Your task to perform on an android device: turn on notifications settings in the gmail app Image 0: 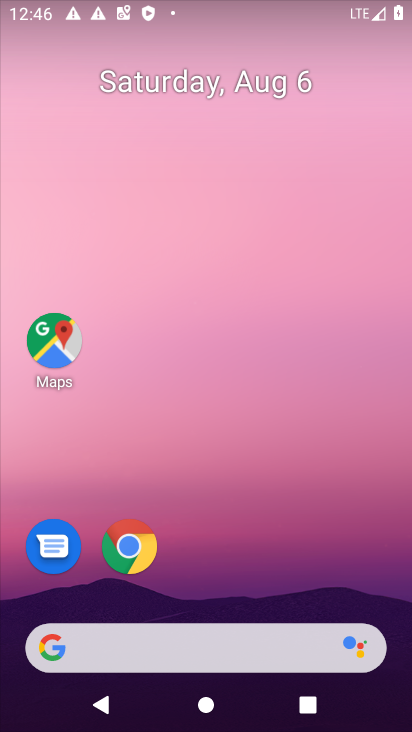
Step 0: drag from (371, 590) to (341, 18)
Your task to perform on an android device: turn on notifications settings in the gmail app Image 1: 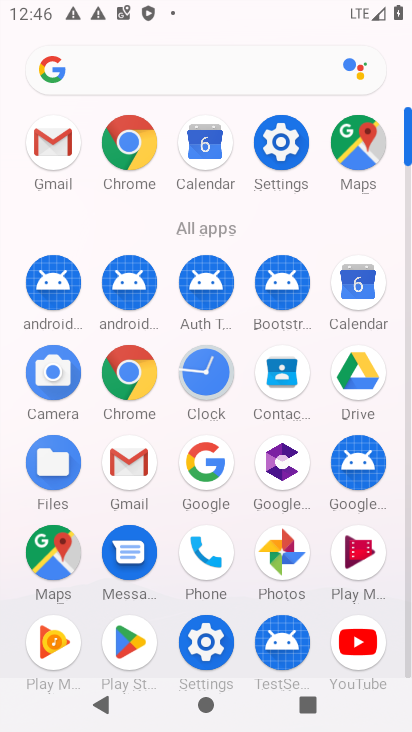
Step 1: click (126, 465)
Your task to perform on an android device: turn on notifications settings in the gmail app Image 2: 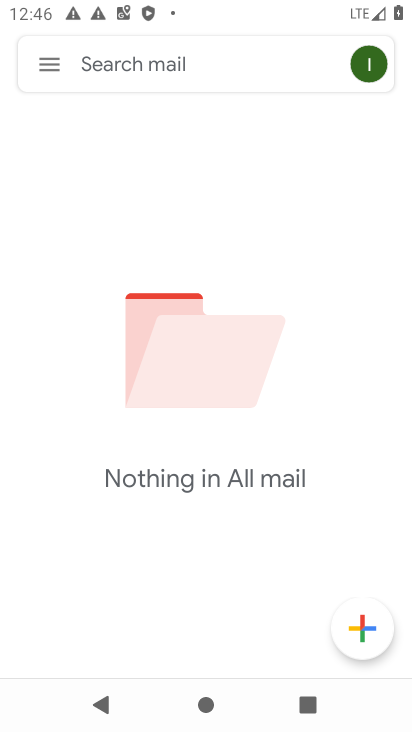
Step 2: click (47, 65)
Your task to perform on an android device: turn on notifications settings in the gmail app Image 3: 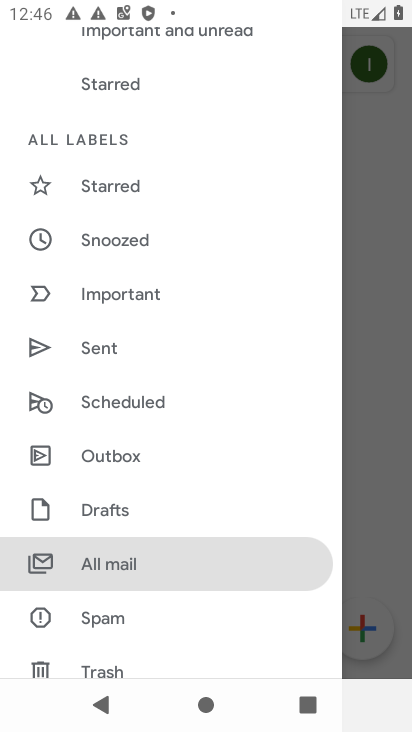
Step 3: drag from (213, 634) to (200, 304)
Your task to perform on an android device: turn on notifications settings in the gmail app Image 4: 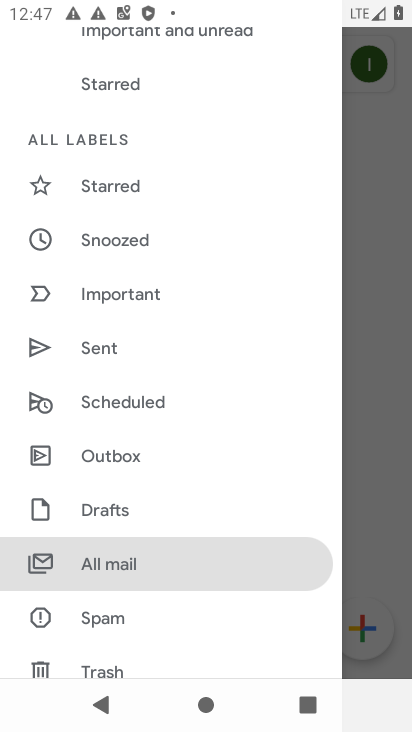
Step 4: drag from (233, 634) to (205, 219)
Your task to perform on an android device: turn on notifications settings in the gmail app Image 5: 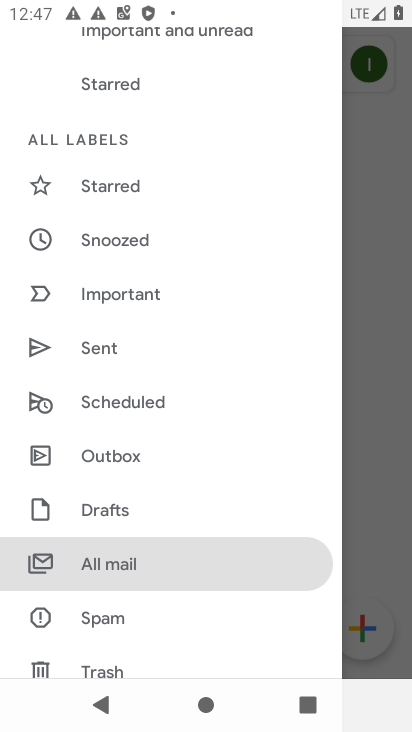
Step 5: drag from (189, 634) to (196, 222)
Your task to perform on an android device: turn on notifications settings in the gmail app Image 6: 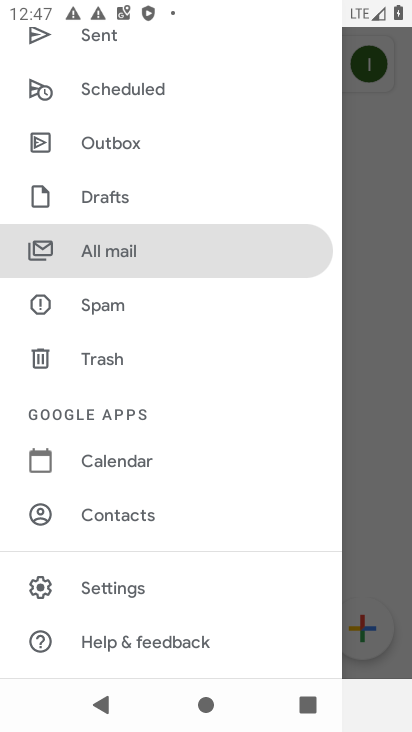
Step 6: click (114, 588)
Your task to perform on an android device: turn on notifications settings in the gmail app Image 7: 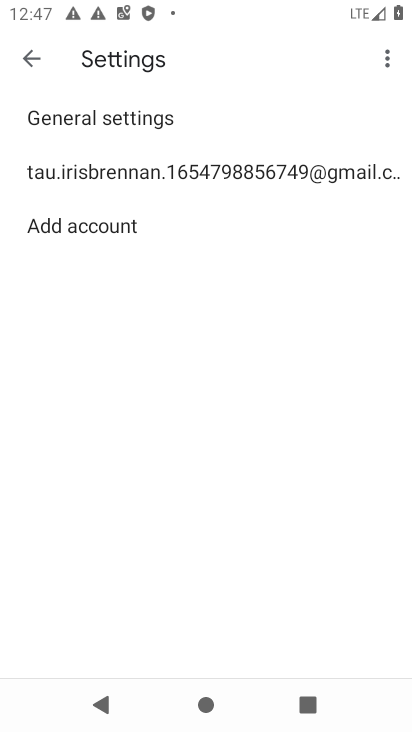
Step 7: click (205, 165)
Your task to perform on an android device: turn on notifications settings in the gmail app Image 8: 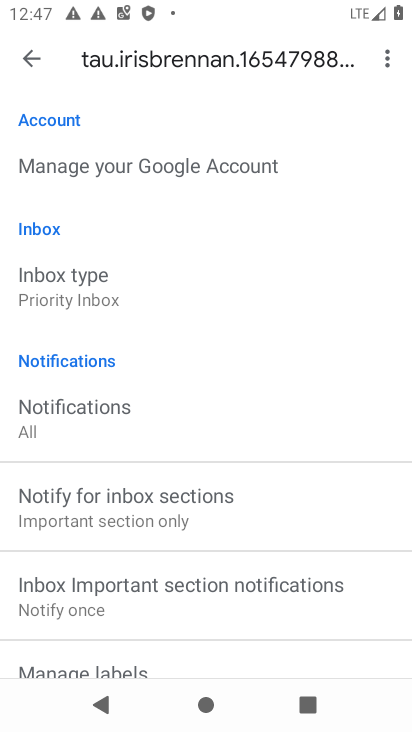
Step 8: drag from (280, 640) to (227, 184)
Your task to perform on an android device: turn on notifications settings in the gmail app Image 9: 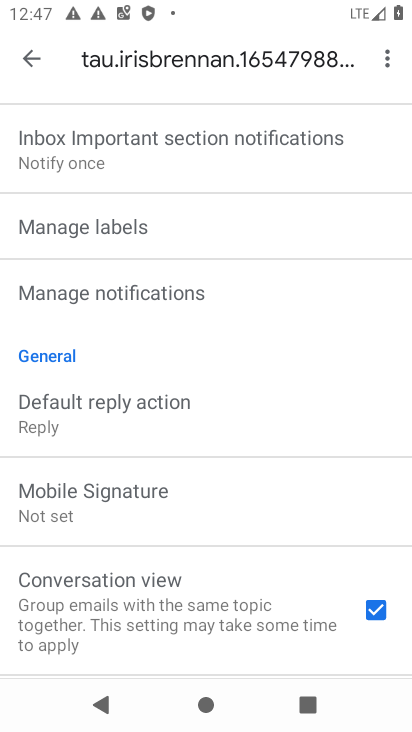
Step 9: click (108, 292)
Your task to perform on an android device: turn on notifications settings in the gmail app Image 10: 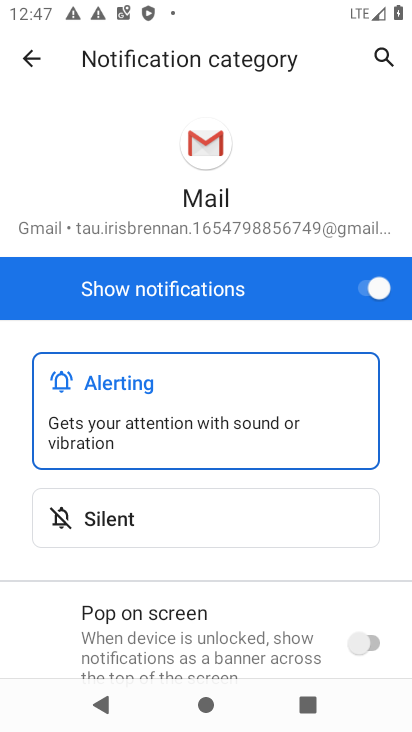
Step 10: task complete